Your task to perform on an android device: Open maps Image 0: 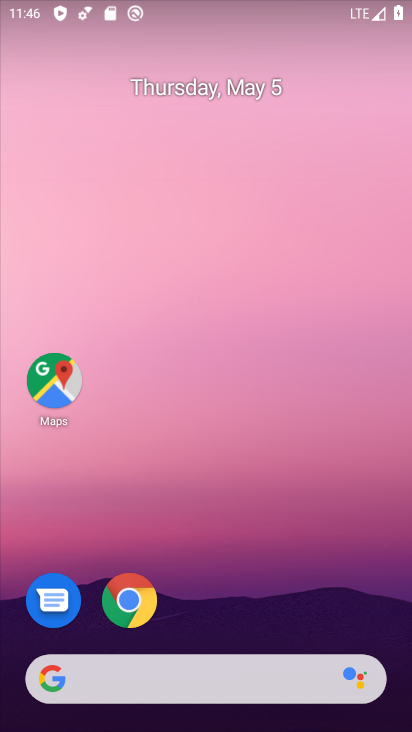
Step 0: drag from (375, 609) to (321, 69)
Your task to perform on an android device: Open maps Image 1: 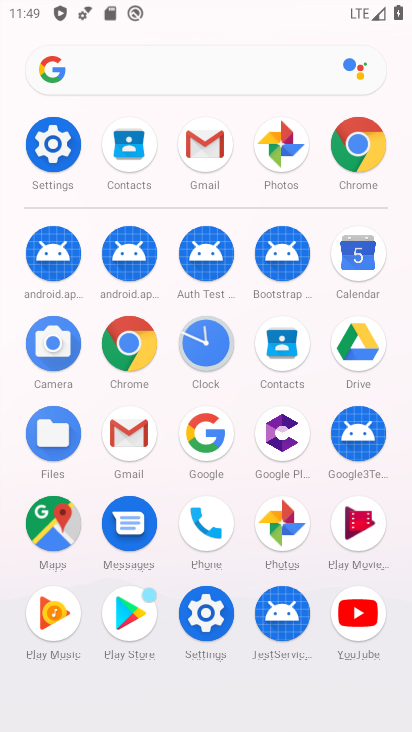
Step 1: click (51, 524)
Your task to perform on an android device: Open maps Image 2: 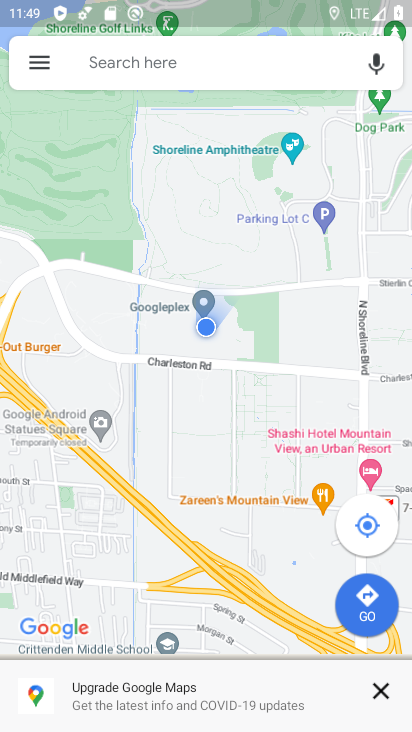
Step 2: task complete